Your task to perform on an android device: Open network settings Image 0: 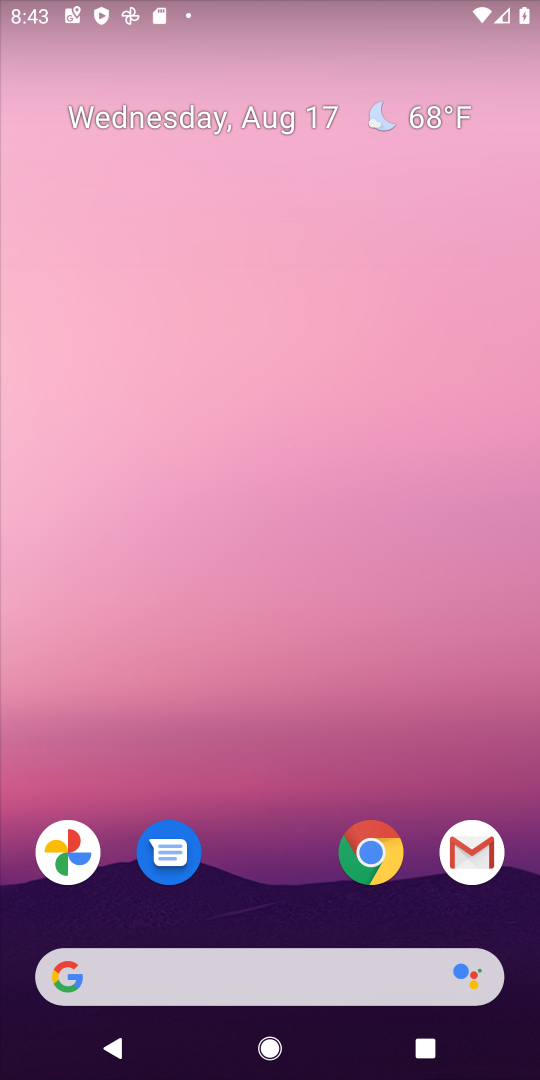
Step 0: drag from (260, 891) to (259, 121)
Your task to perform on an android device: Open network settings Image 1: 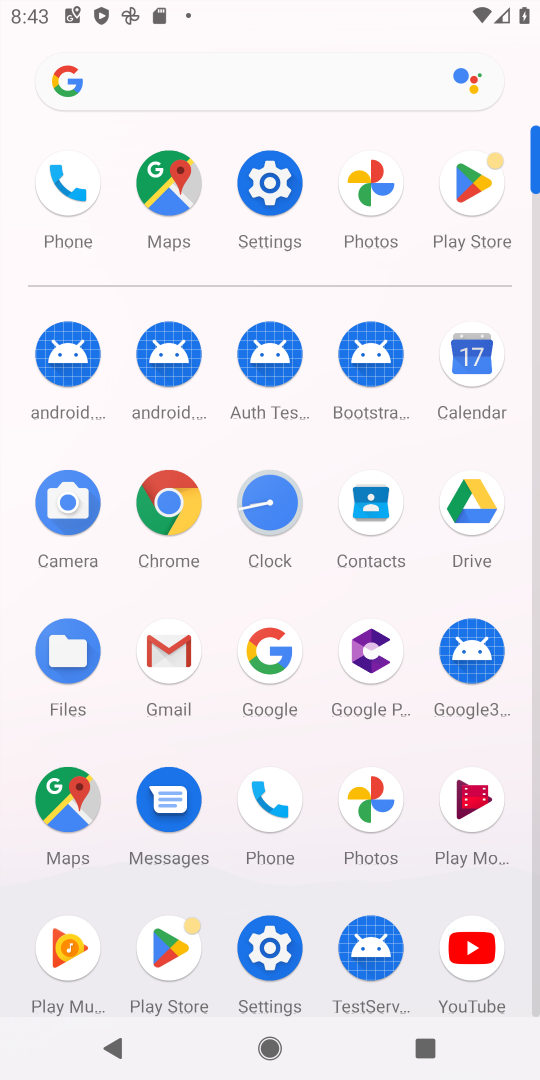
Step 1: click (267, 193)
Your task to perform on an android device: Open network settings Image 2: 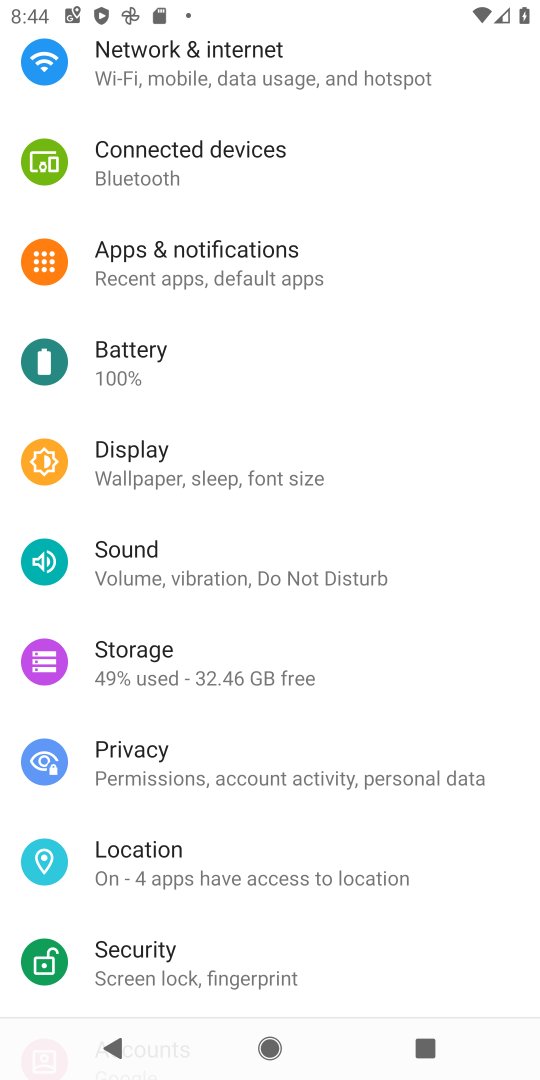
Step 2: click (192, 47)
Your task to perform on an android device: Open network settings Image 3: 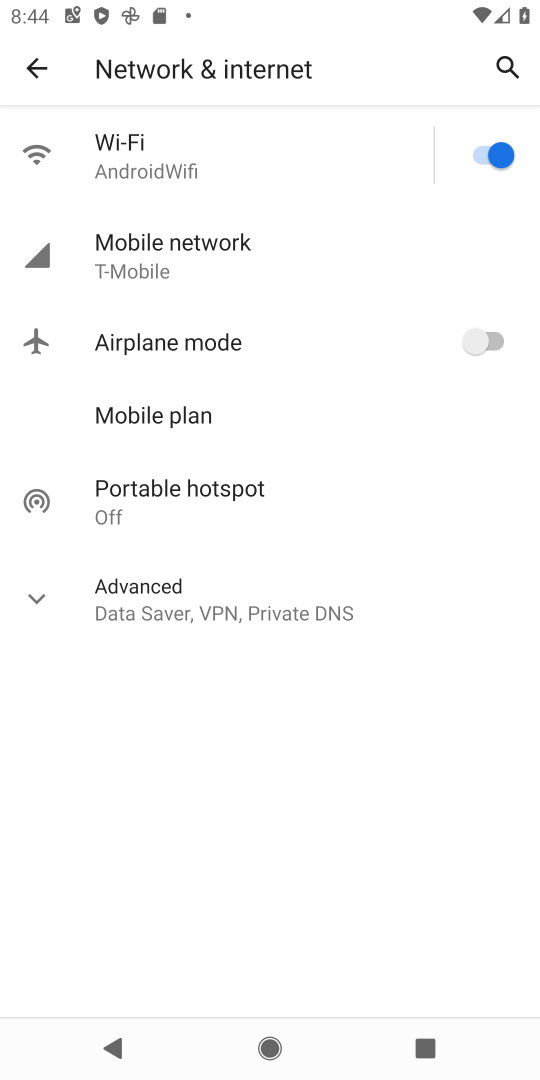
Step 3: task complete